Your task to perform on an android device: find which apps use the phone's location Image 0: 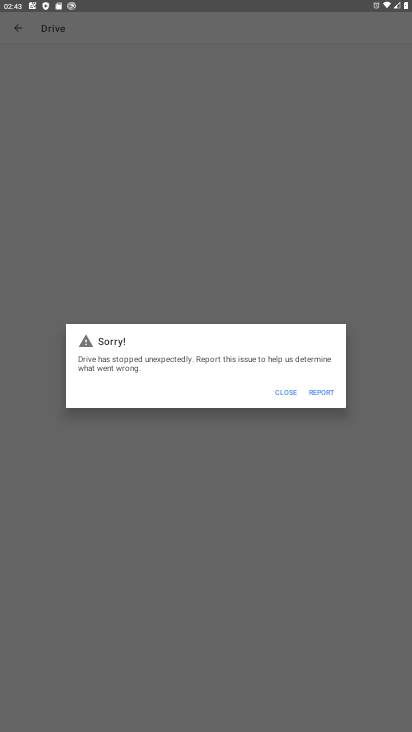
Step 0: press home button
Your task to perform on an android device: find which apps use the phone's location Image 1: 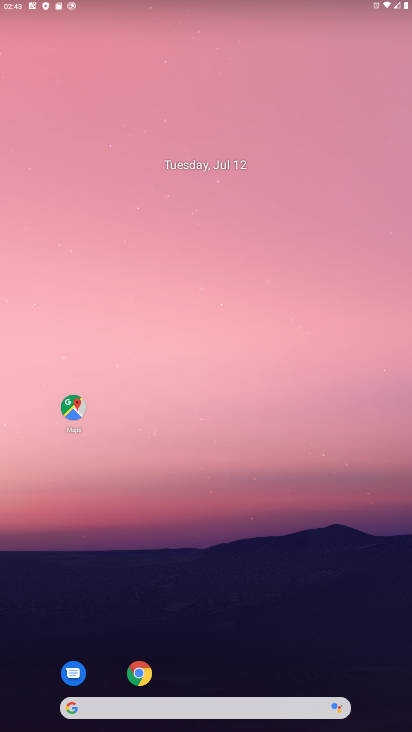
Step 1: drag from (282, 644) to (249, 85)
Your task to perform on an android device: find which apps use the phone's location Image 2: 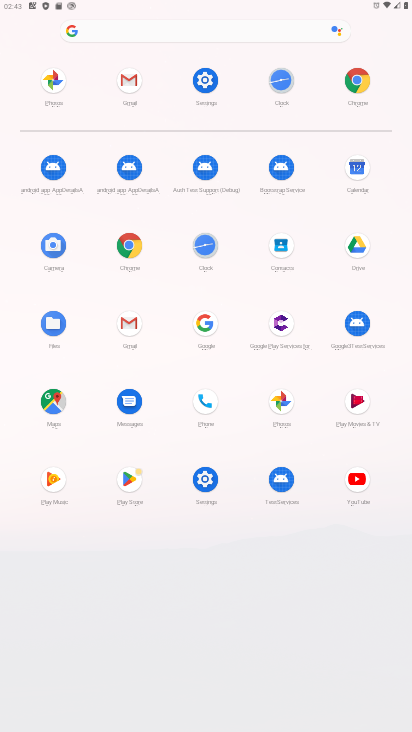
Step 2: click (199, 80)
Your task to perform on an android device: find which apps use the phone's location Image 3: 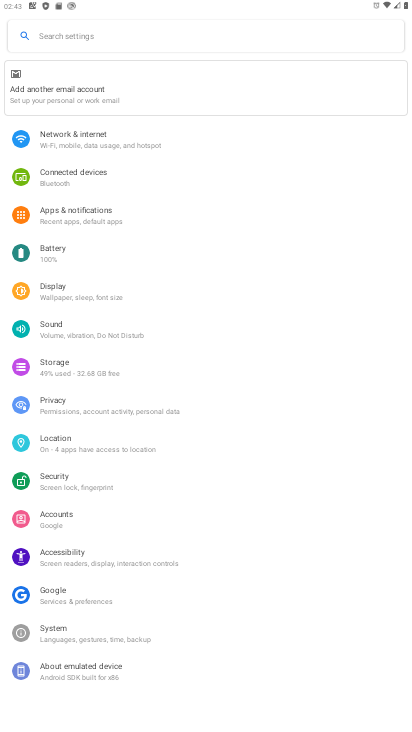
Step 3: click (164, 445)
Your task to perform on an android device: find which apps use the phone's location Image 4: 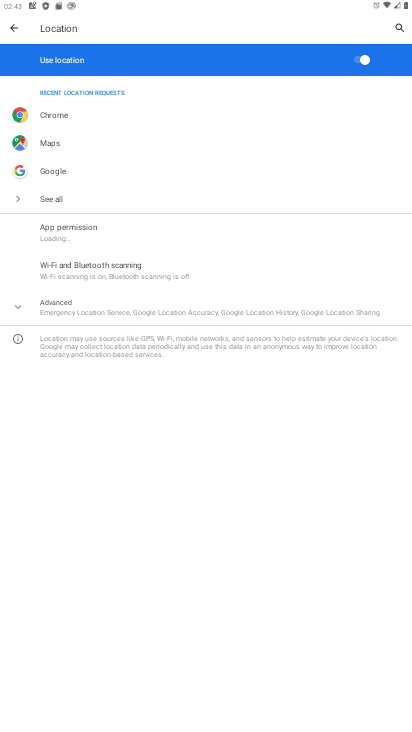
Step 4: task complete